Your task to perform on an android device: Open battery settings Image 0: 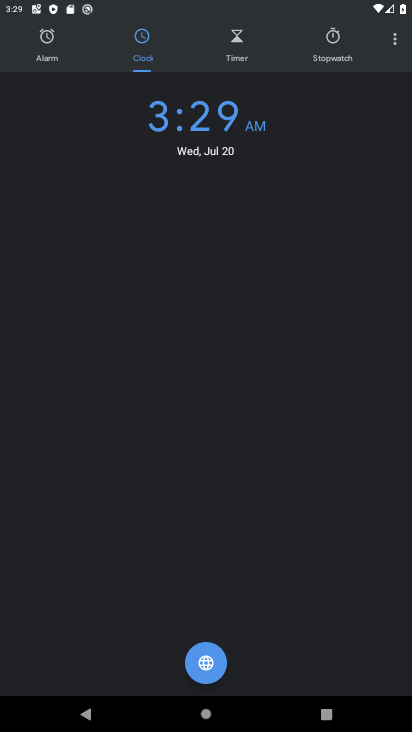
Step 0: click (386, 28)
Your task to perform on an android device: Open battery settings Image 1: 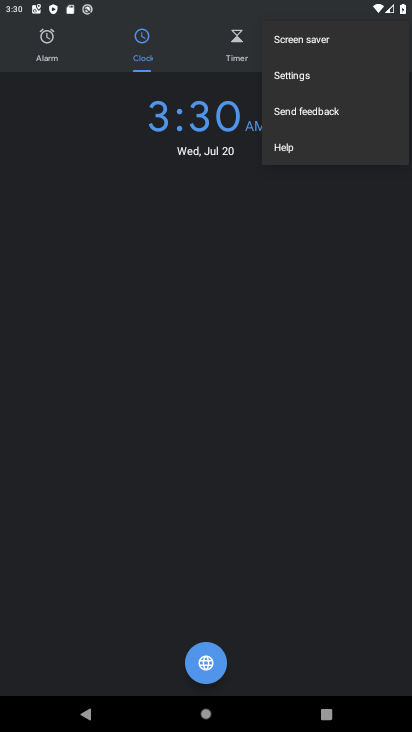
Step 1: press home button
Your task to perform on an android device: Open battery settings Image 2: 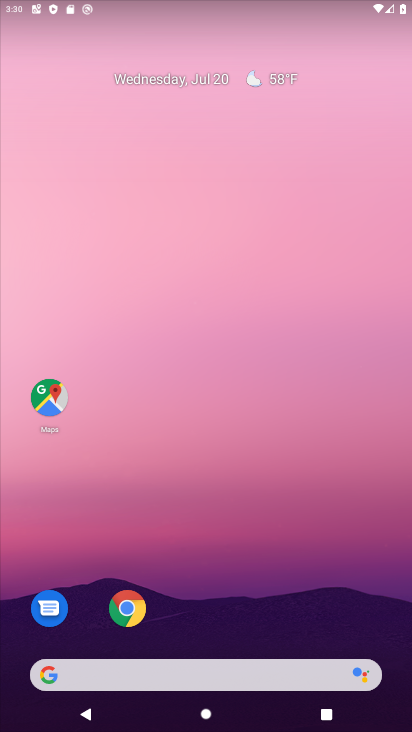
Step 2: drag from (263, 616) to (253, 3)
Your task to perform on an android device: Open battery settings Image 3: 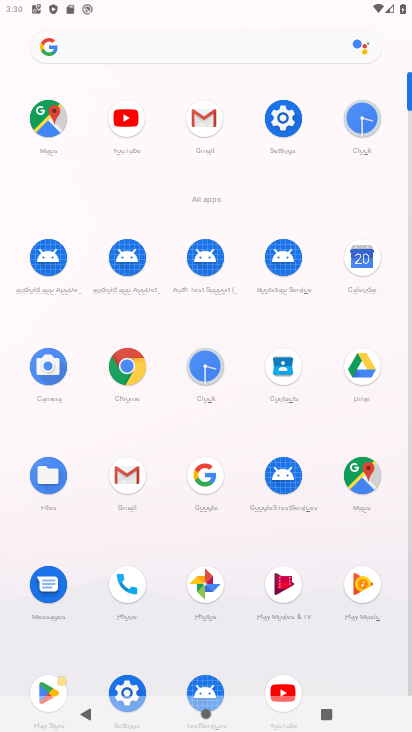
Step 3: click (288, 146)
Your task to perform on an android device: Open battery settings Image 4: 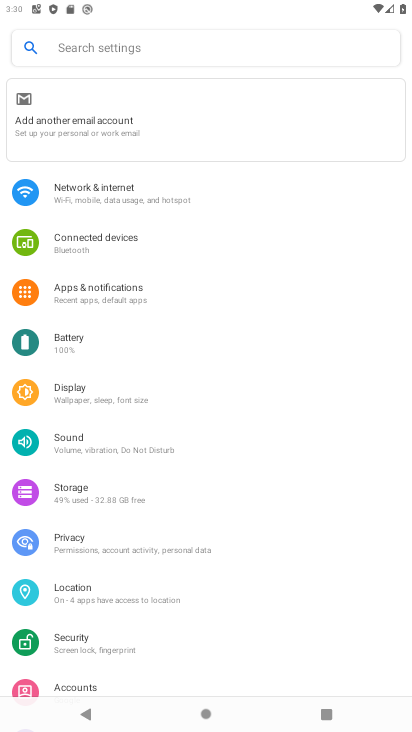
Step 4: click (129, 348)
Your task to perform on an android device: Open battery settings Image 5: 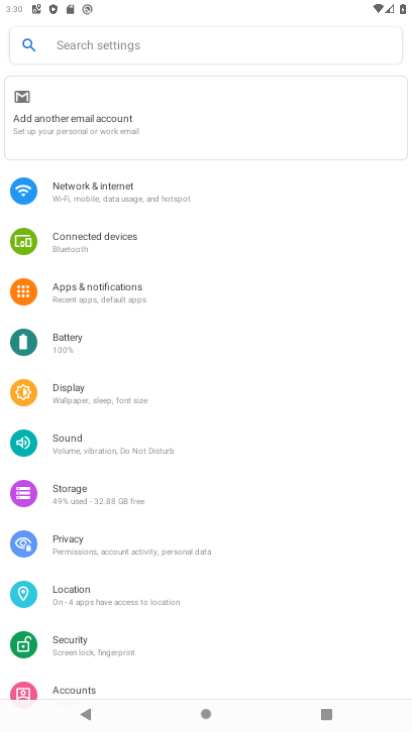
Step 5: task complete